Your task to perform on an android device: all mails in gmail Image 0: 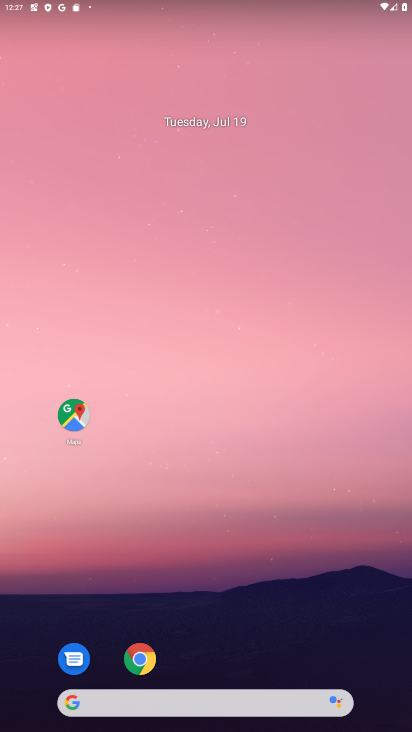
Step 0: drag from (209, 683) to (292, 120)
Your task to perform on an android device: all mails in gmail Image 1: 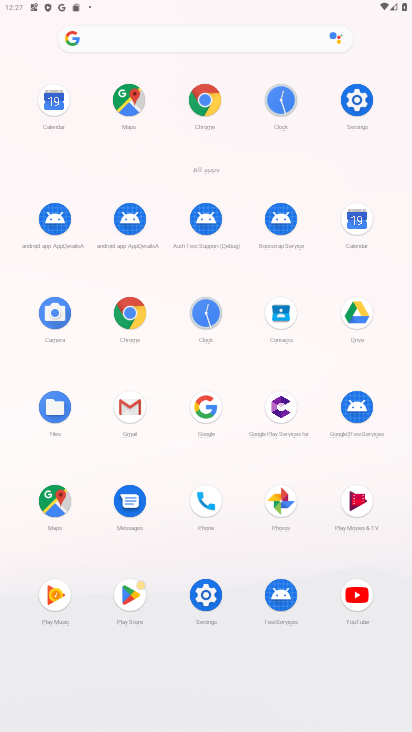
Step 1: click (131, 405)
Your task to perform on an android device: all mails in gmail Image 2: 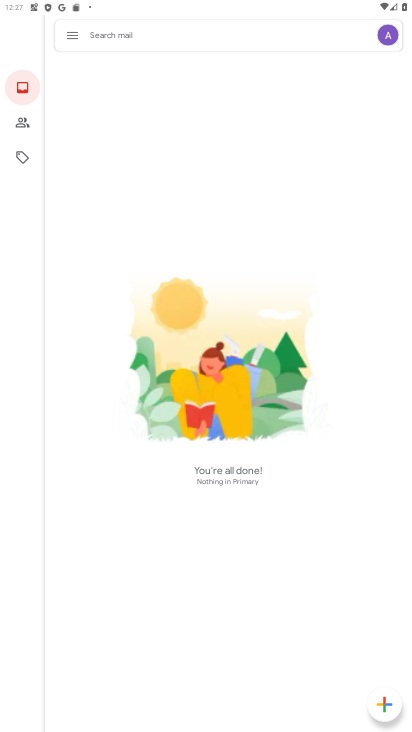
Step 2: click (70, 35)
Your task to perform on an android device: all mails in gmail Image 3: 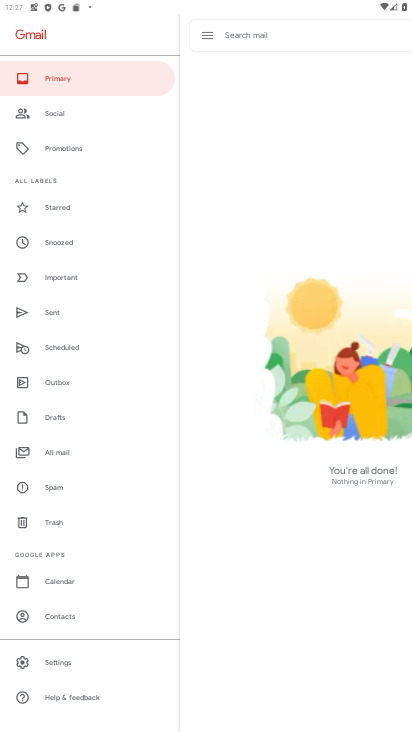
Step 3: click (64, 448)
Your task to perform on an android device: all mails in gmail Image 4: 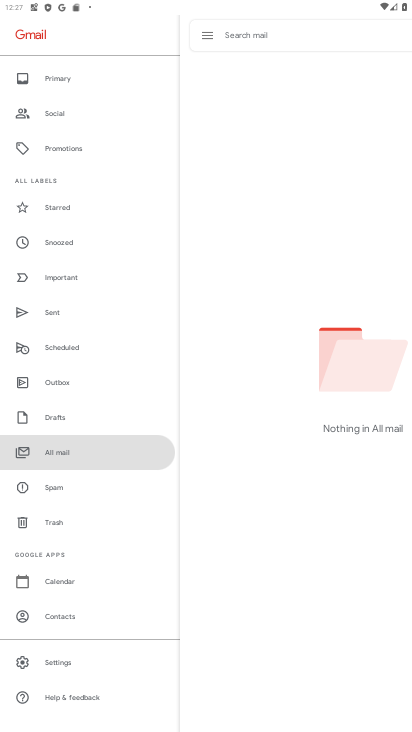
Step 4: click (40, 417)
Your task to perform on an android device: all mails in gmail Image 5: 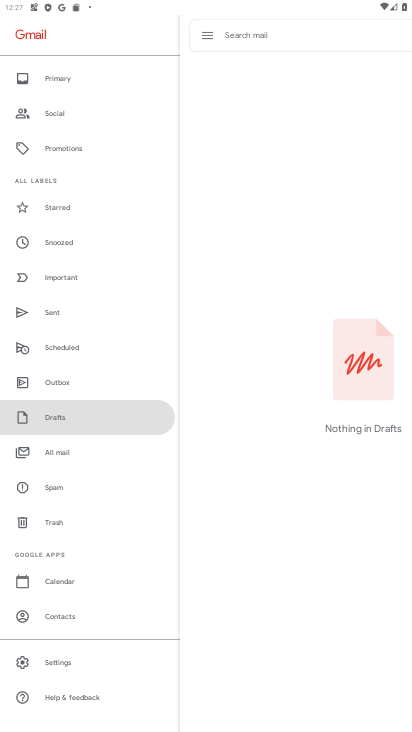
Step 5: click (65, 378)
Your task to perform on an android device: all mails in gmail Image 6: 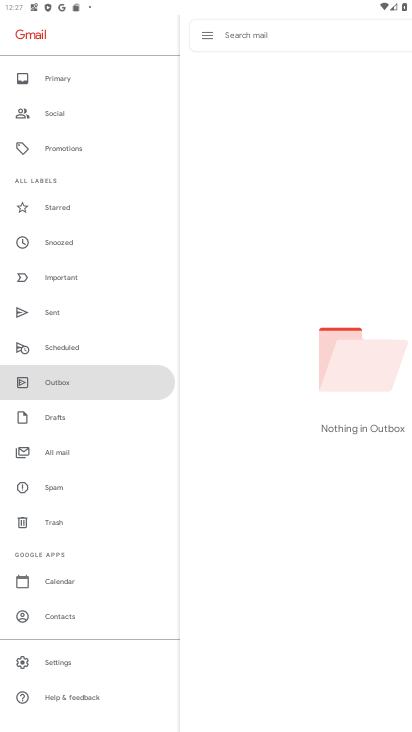
Step 6: click (65, 348)
Your task to perform on an android device: all mails in gmail Image 7: 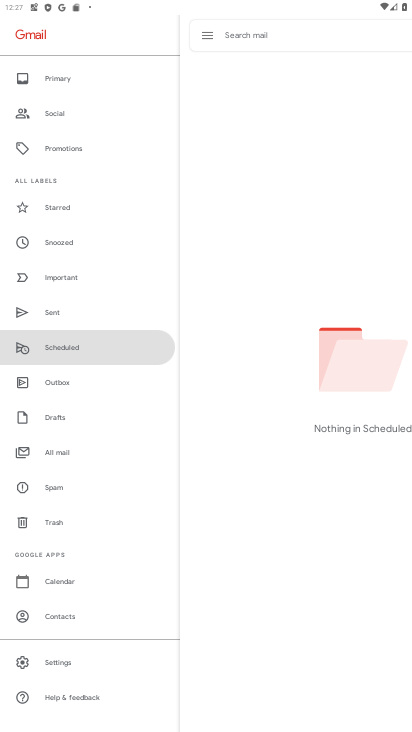
Step 7: click (54, 316)
Your task to perform on an android device: all mails in gmail Image 8: 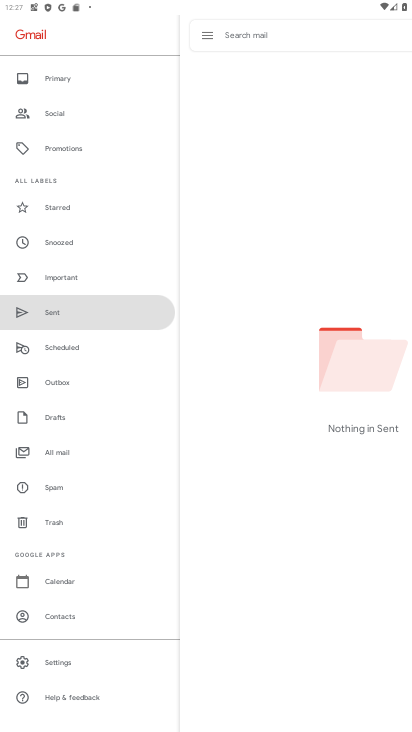
Step 8: click (77, 277)
Your task to perform on an android device: all mails in gmail Image 9: 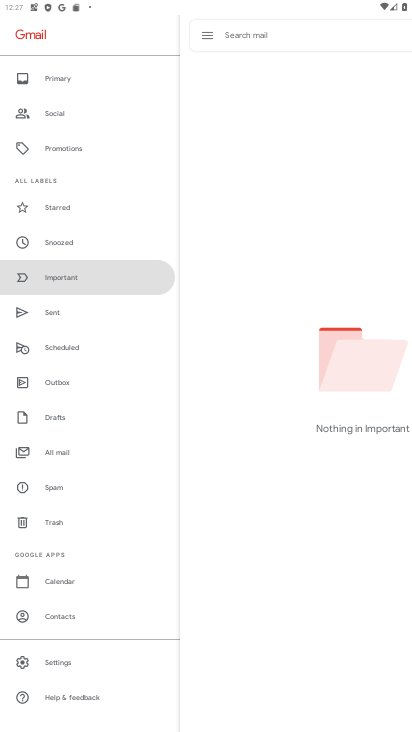
Step 9: task complete